Your task to perform on an android device: Open the calendar and show me this week's events? Image 0: 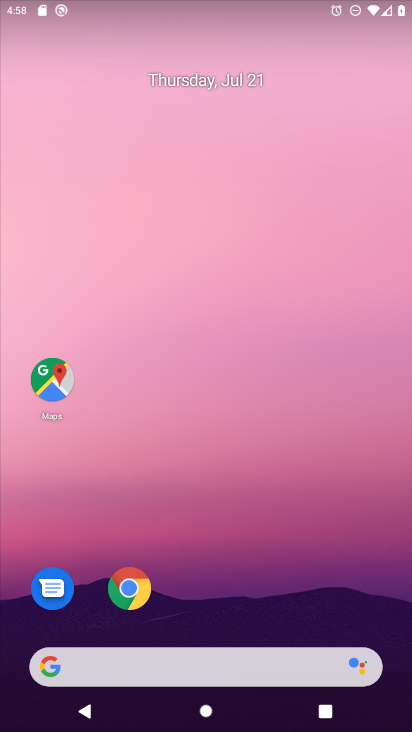
Step 0: drag from (327, 608) to (253, 34)
Your task to perform on an android device: Open the calendar and show me this week's events? Image 1: 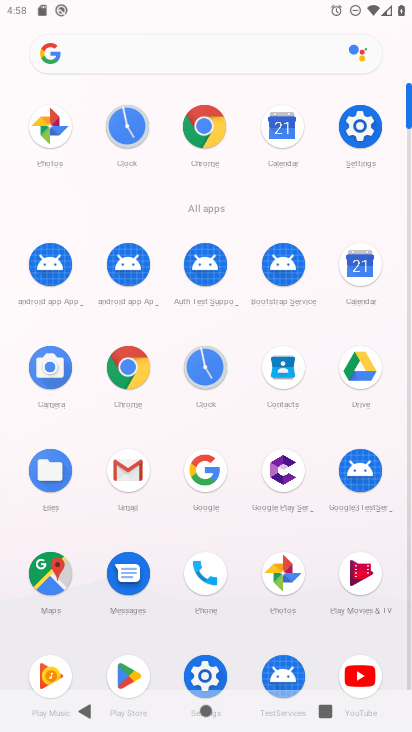
Step 1: click (362, 270)
Your task to perform on an android device: Open the calendar and show me this week's events? Image 2: 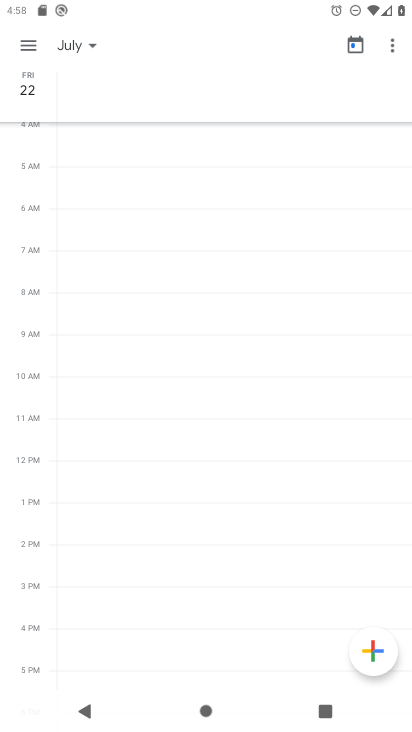
Step 2: click (25, 45)
Your task to perform on an android device: Open the calendar and show me this week's events? Image 3: 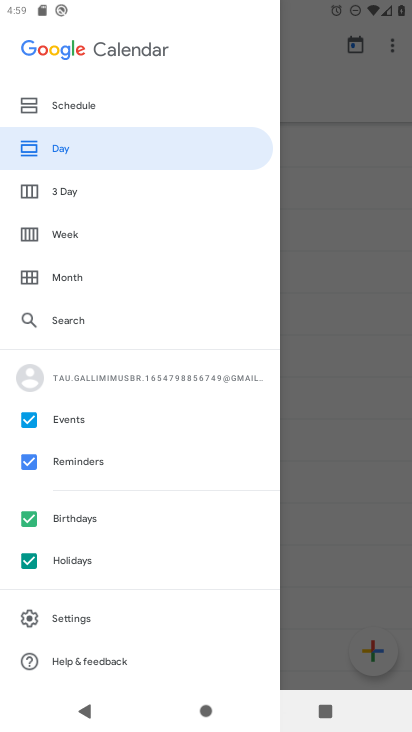
Step 3: click (23, 557)
Your task to perform on an android device: Open the calendar and show me this week's events? Image 4: 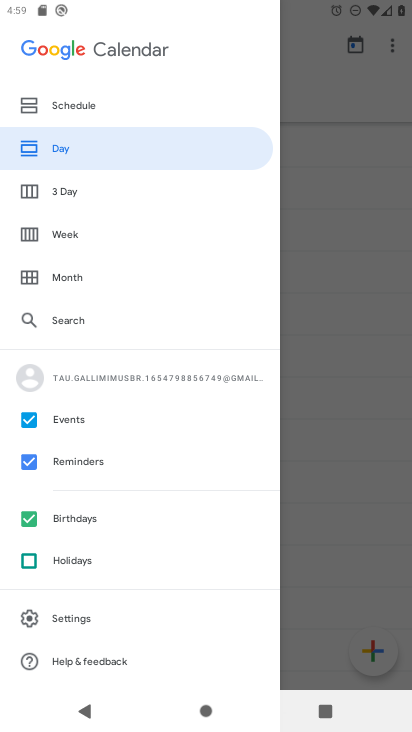
Step 4: click (28, 520)
Your task to perform on an android device: Open the calendar and show me this week's events? Image 5: 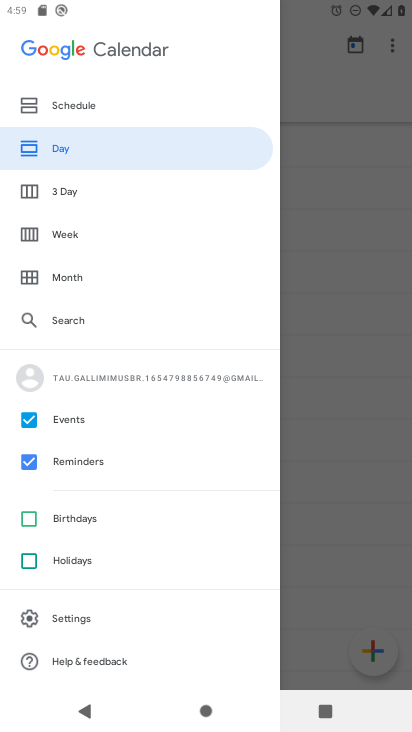
Step 5: click (30, 457)
Your task to perform on an android device: Open the calendar and show me this week's events? Image 6: 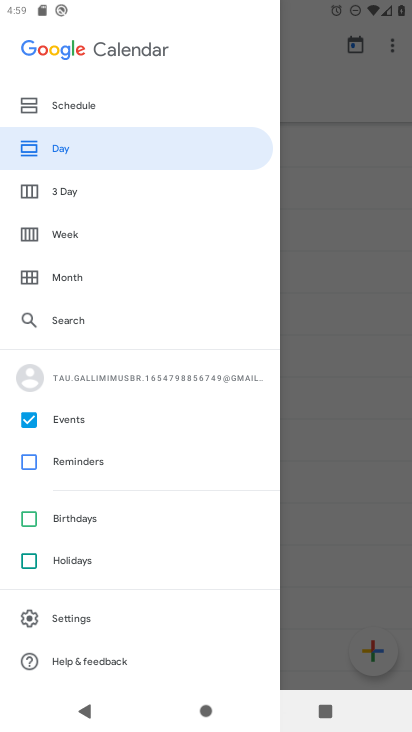
Step 6: click (36, 229)
Your task to perform on an android device: Open the calendar and show me this week's events? Image 7: 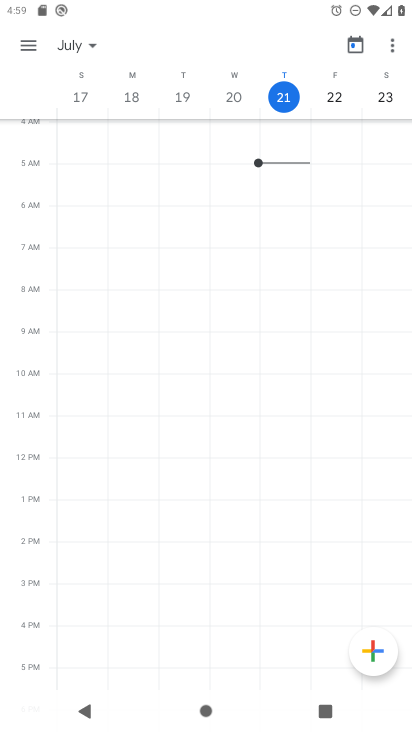
Step 7: task complete